Your task to perform on an android device: open device folders in google photos Image 0: 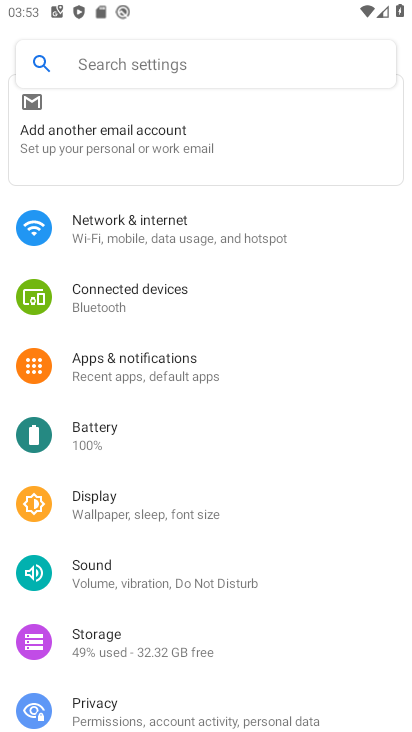
Step 0: press home button
Your task to perform on an android device: open device folders in google photos Image 1: 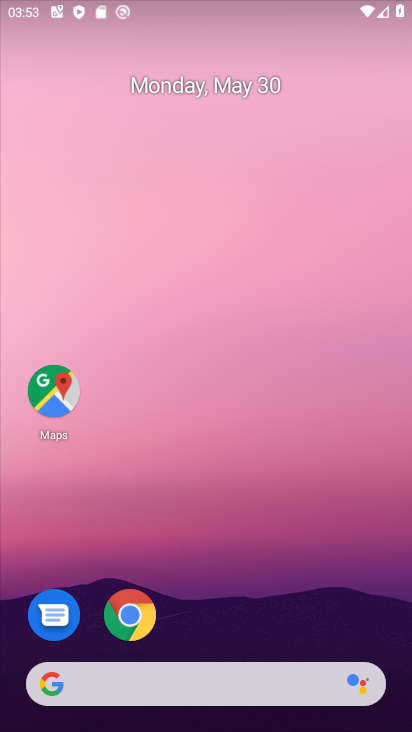
Step 1: drag from (251, 596) to (223, 140)
Your task to perform on an android device: open device folders in google photos Image 2: 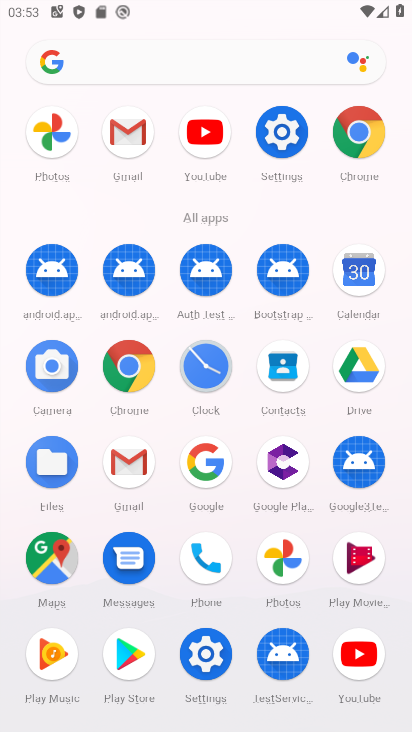
Step 2: click (55, 132)
Your task to perform on an android device: open device folders in google photos Image 3: 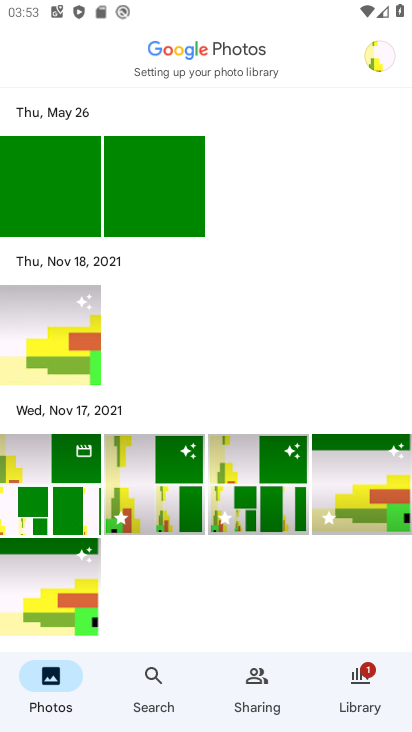
Step 3: click (254, 696)
Your task to perform on an android device: open device folders in google photos Image 4: 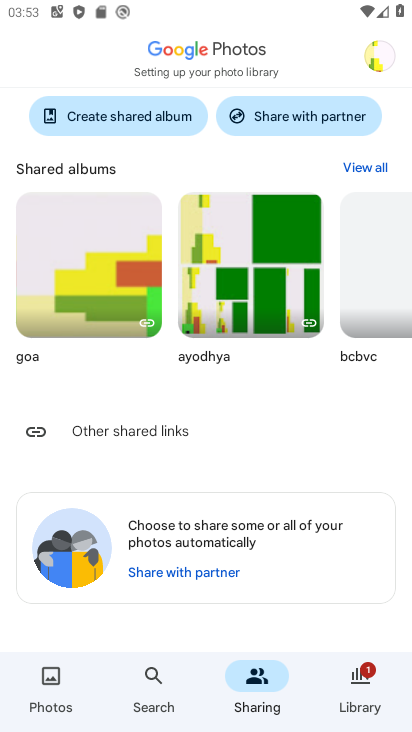
Step 4: drag from (159, 534) to (218, 361)
Your task to perform on an android device: open device folders in google photos Image 5: 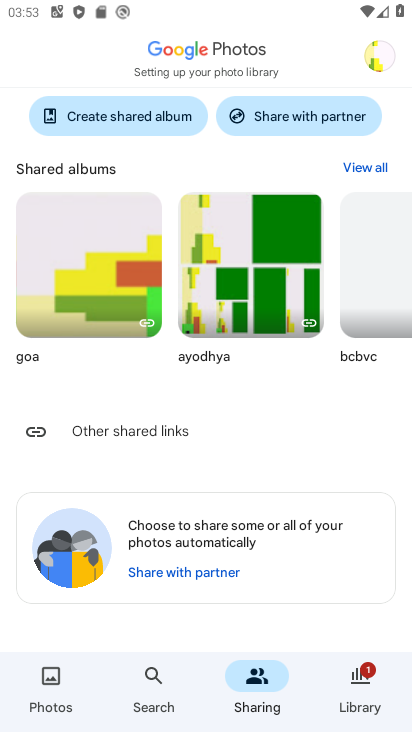
Step 5: drag from (187, 598) to (216, 419)
Your task to perform on an android device: open device folders in google photos Image 6: 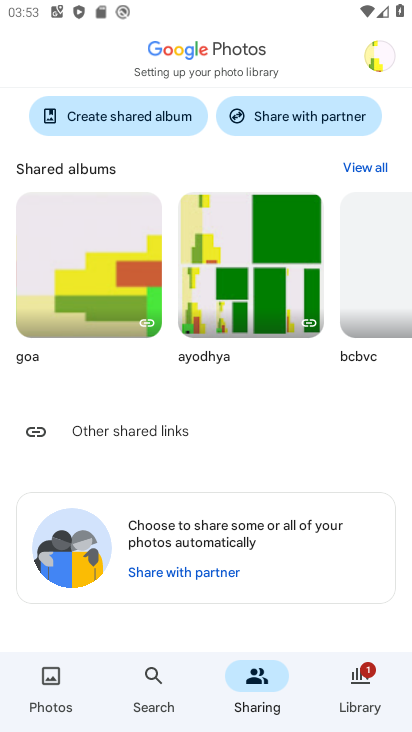
Step 6: click (151, 679)
Your task to perform on an android device: open device folders in google photos Image 7: 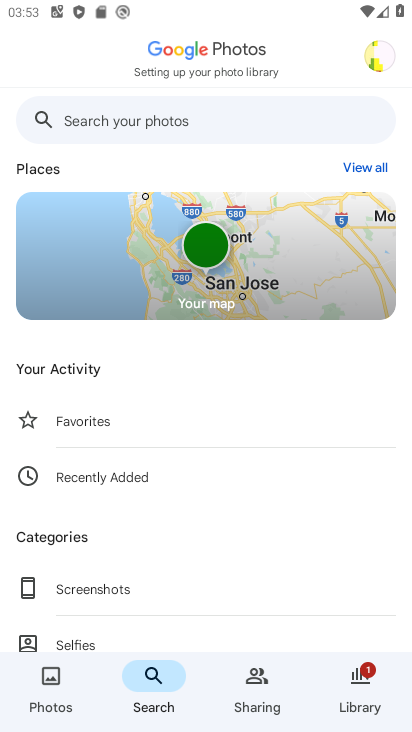
Step 7: task complete